Your task to perform on an android device: set the timer Image 0: 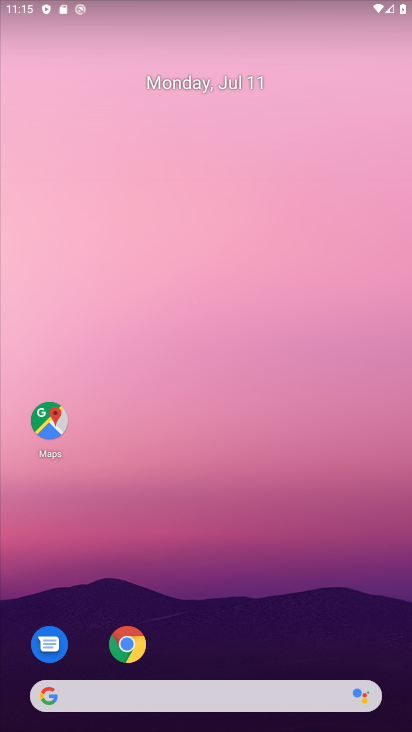
Step 0: drag from (399, 707) to (223, 114)
Your task to perform on an android device: set the timer Image 1: 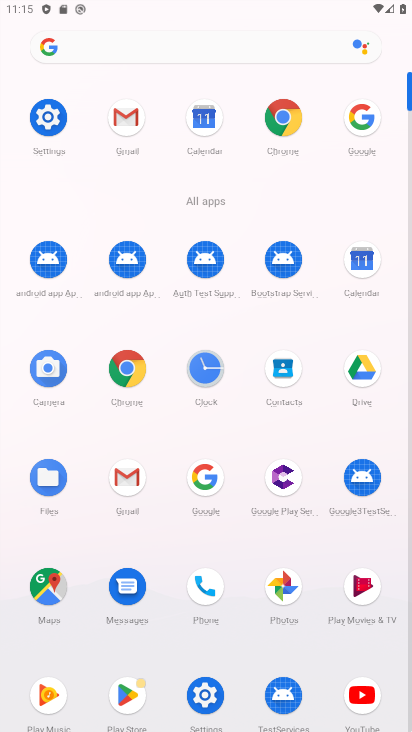
Step 1: click (208, 378)
Your task to perform on an android device: set the timer Image 2: 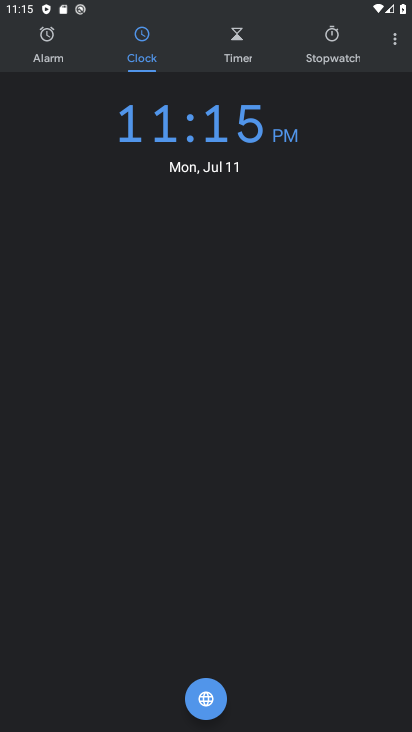
Step 2: click (236, 40)
Your task to perform on an android device: set the timer Image 3: 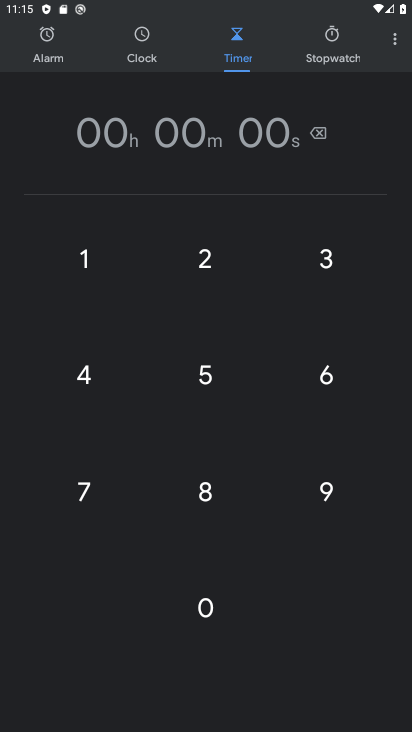
Step 3: click (200, 366)
Your task to perform on an android device: set the timer Image 4: 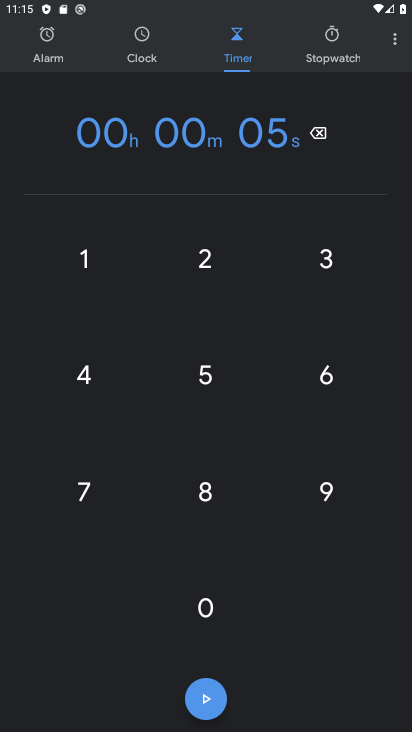
Step 4: click (200, 367)
Your task to perform on an android device: set the timer Image 5: 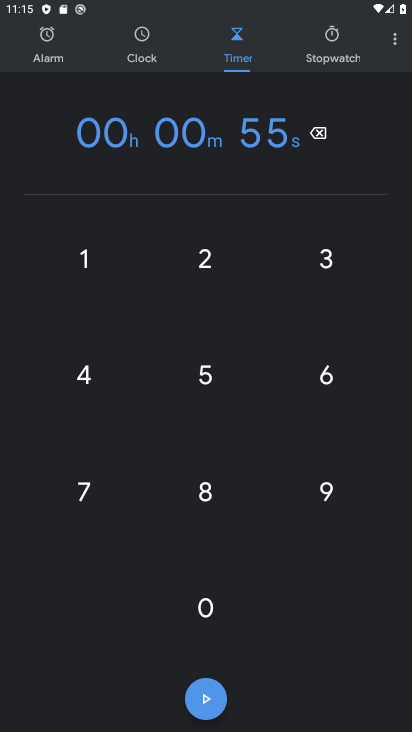
Step 5: click (84, 372)
Your task to perform on an android device: set the timer Image 6: 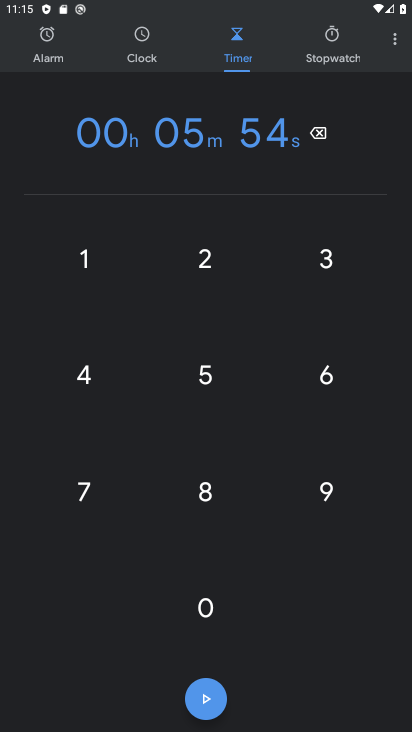
Step 6: click (210, 694)
Your task to perform on an android device: set the timer Image 7: 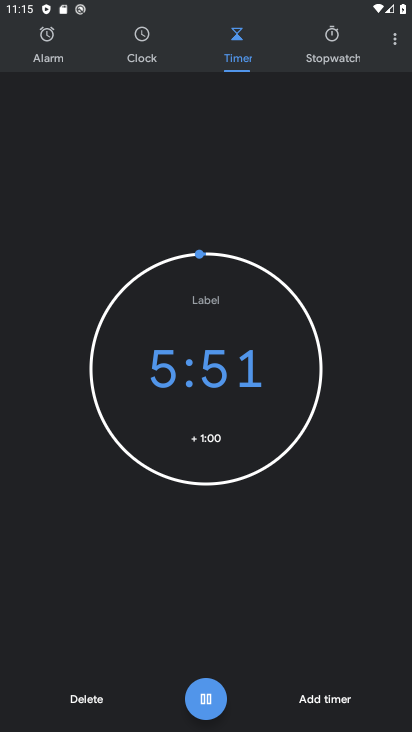
Step 7: task complete